Your task to perform on an android device: change alarm snooze length Image 0: 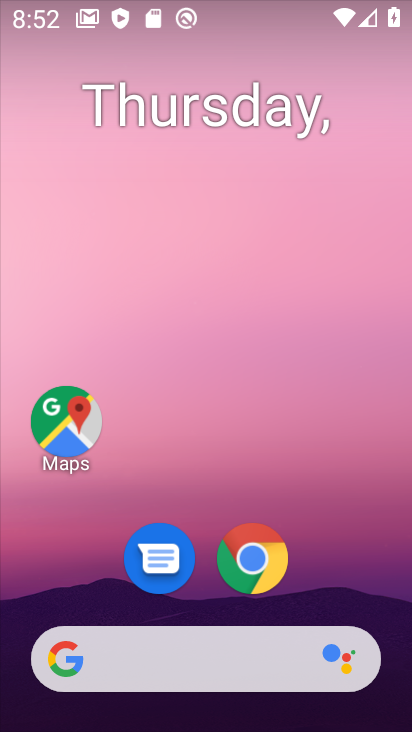
Step 0: drag from (384, 608) to (313, 103)
Your task to perform on an android device: change alarm snooze length Image 1: 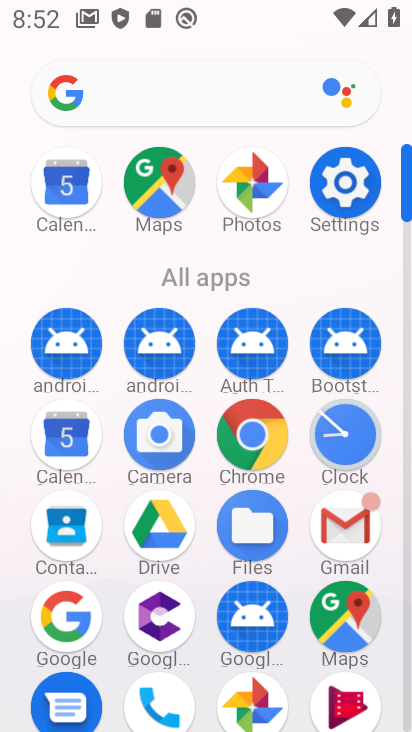
Step 1: click (406, 696)
Your task to perform on an android device: change alarm snooze length Image 2: 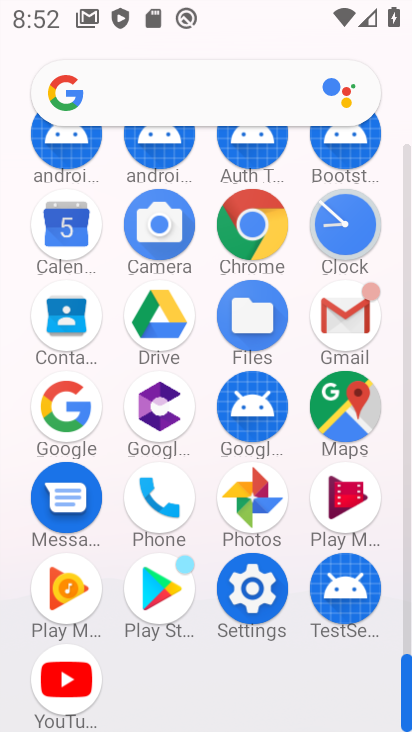
Step 2: click (342, 223)
Your task to perform on an android device: change alarm snooze length Image 3: 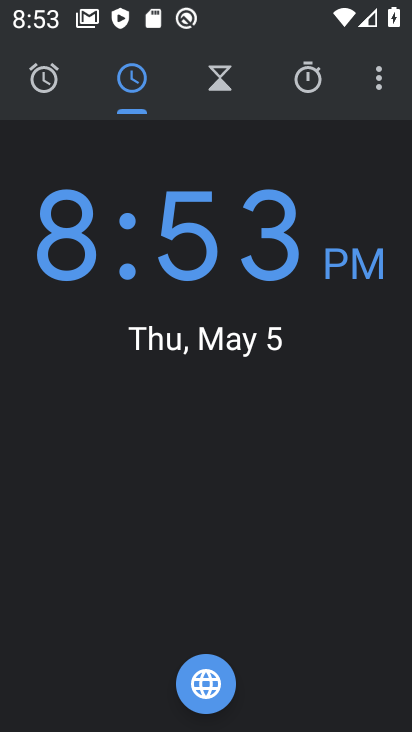
Step 3: click (373, 87)
Your task to perform on an android device: change alarm snooze length Image 4: 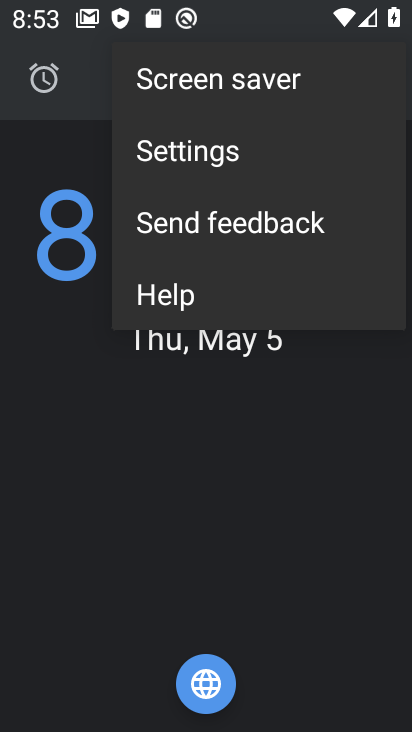
Step 4: click (174, 163)
Your task to perform on an android device: change alarm snooze length Image 5: 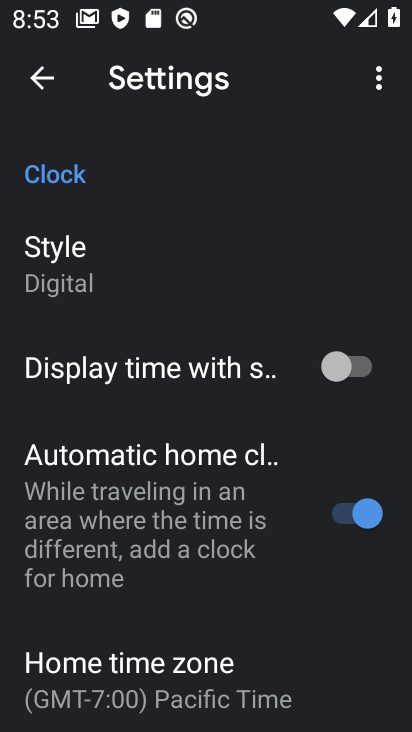
Step 5: drag from (253, 635) to (289, 208)
Your task to perform on an android device: change alarm snooze length Image 6: 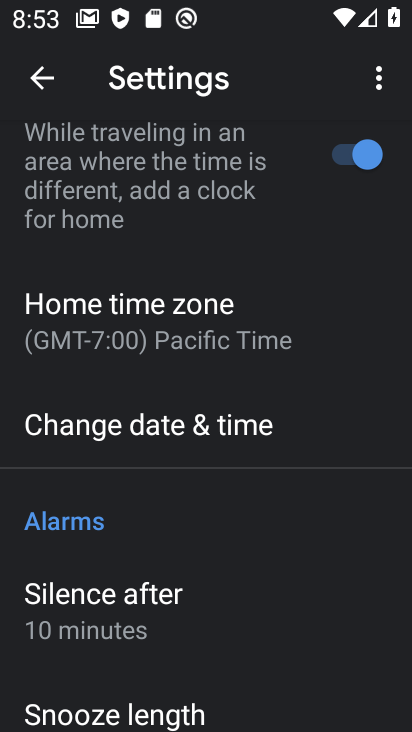
Step 6: drag from (238, 643) to (274, 252)
Your task to perform on an android device: change alarm snooze length Image 7: 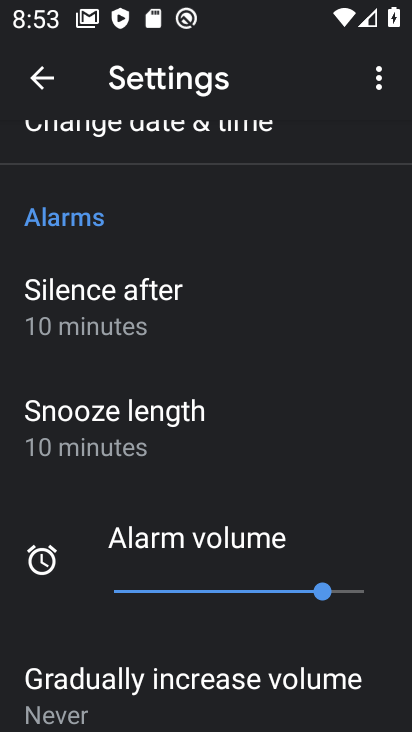
Step 7: click (78, 420)
Your task to perform on an android device: change alarm snooze length Image 8: 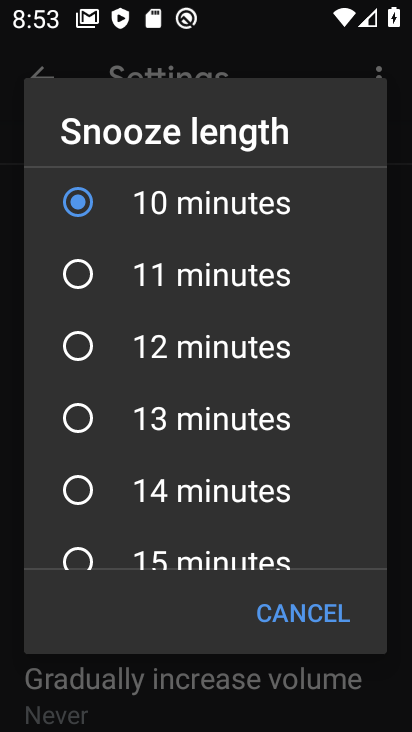
Step 8: drag from (246, 520) to (223, 239)
Your task to perform on an android device: change alarm snooze length Image 9: 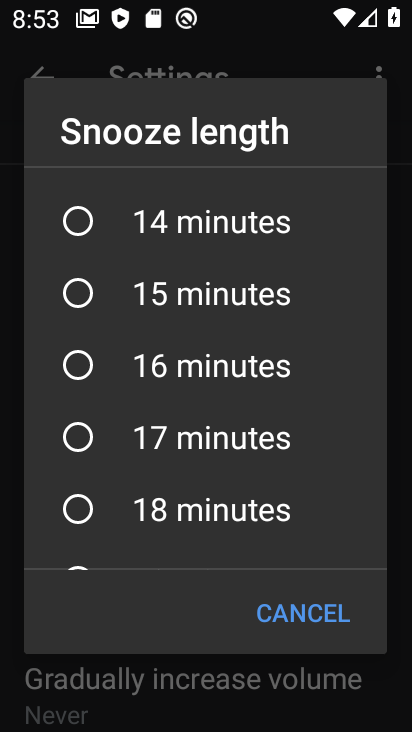
Step 9: click (76, 293)
Your task to perform on an android device: change alarm snooze length Image 10: 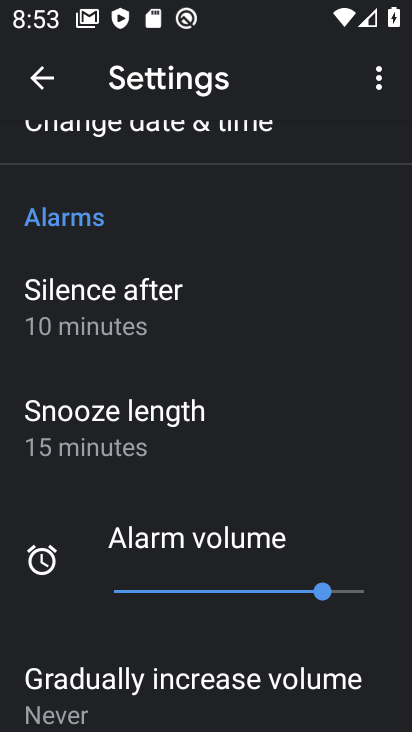
Step 10: task complete